Your task to perform on an android device: check battery use Image 0: 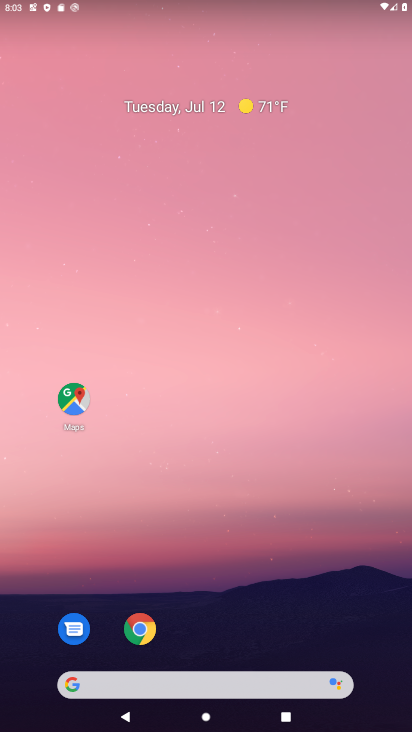
Step 0: drag from (373, 660) to (262, 57)
Your task to perform on an android device: check battery use Image 1: 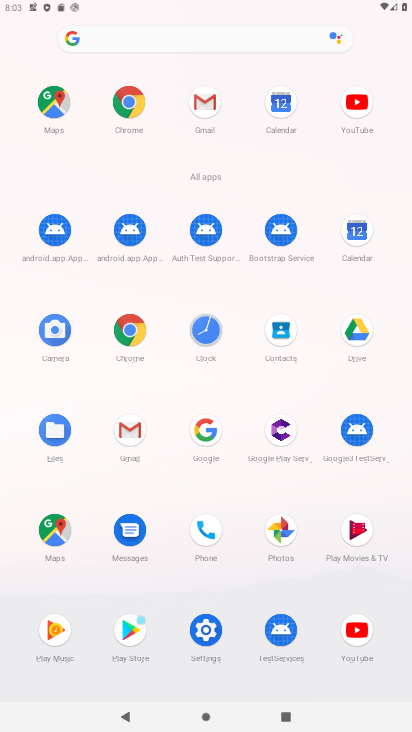
Step 1: click (205, 630)
Your task to perform on an android device: check battery use Image 2: 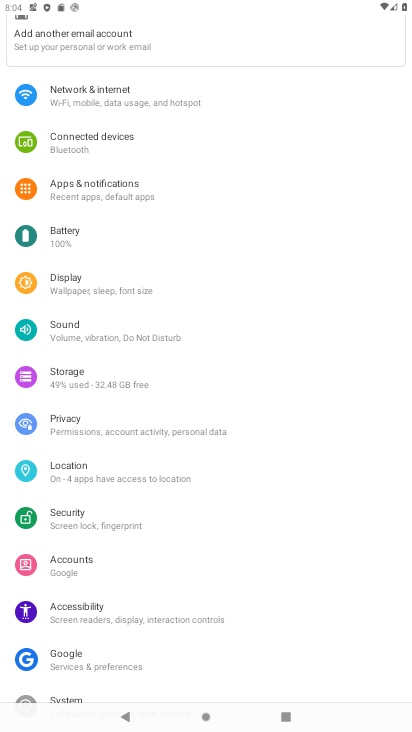
Step 2: click (65, 233)
Your task to perform on an android device: check battery use Image 3: 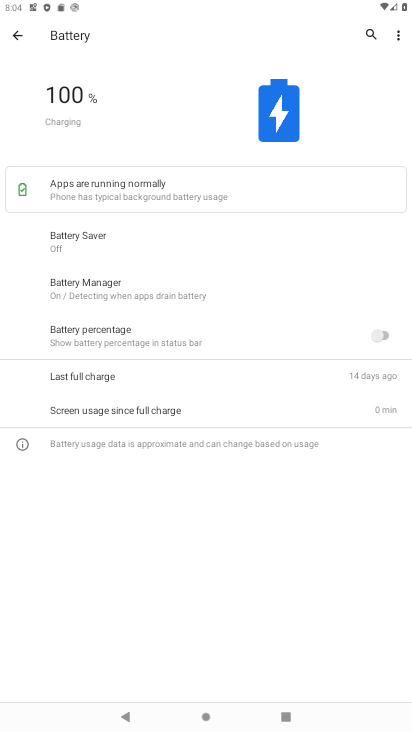
Step 3: click (398, 39)
Your task to perform on an android device: check battery use Image 4: 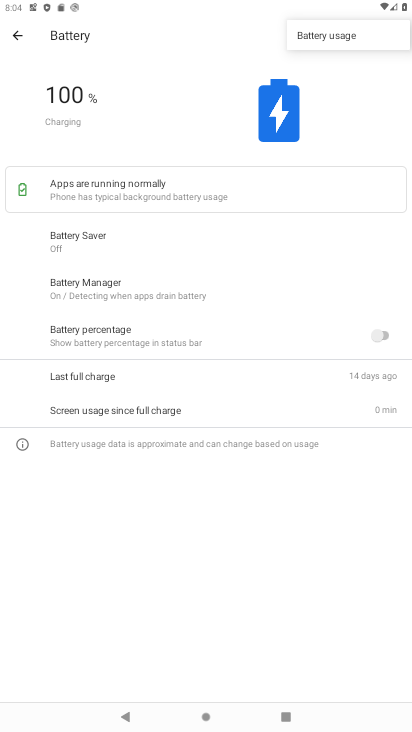
Step 4: click (356, 29)
Your task to perform on an android device: check battery use Image 5: 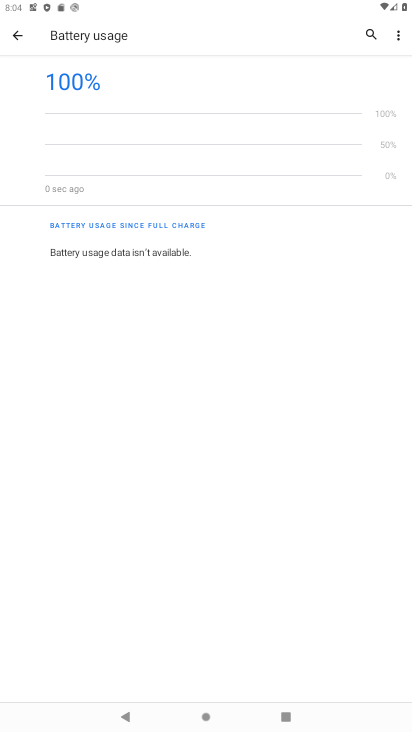
Step 5: task complete